Your task to perform on an android device: Open sound settings Image 0: 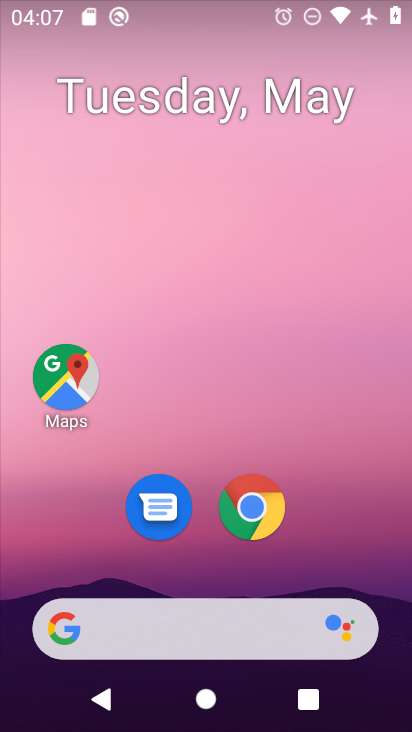
Step 0: drag from (217, 501) to (203, 115)
Your task to perform on an android device: Open sound settings Image 1: 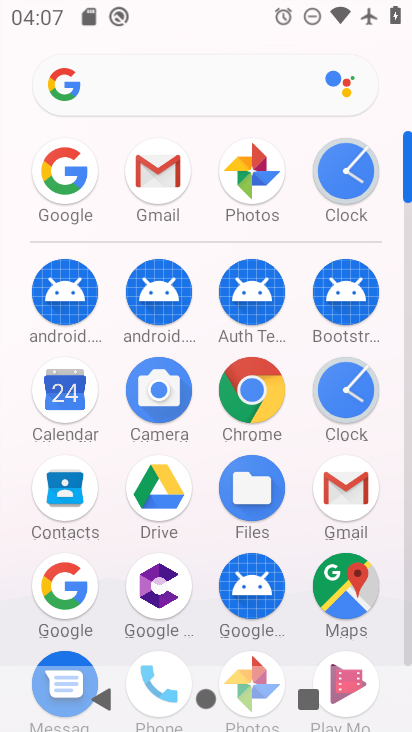
Step 1: drag from (126, 588) to (136, 226)
Your task to perform on an android device: Open sound settings Image 2: 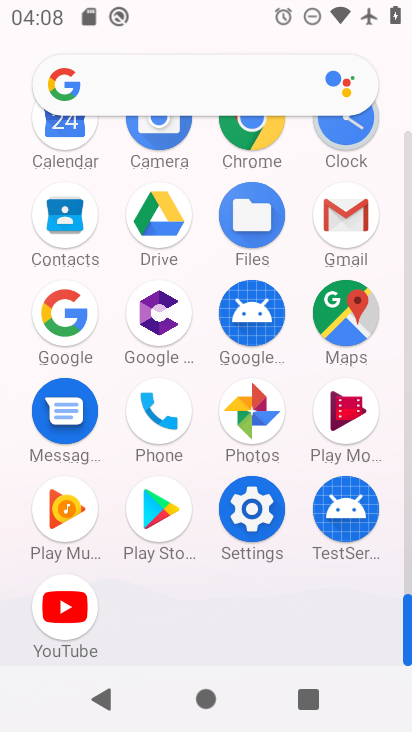
Step 2: click (240, 498)
Your task to perform on an android device: Open sound settings Image 3: 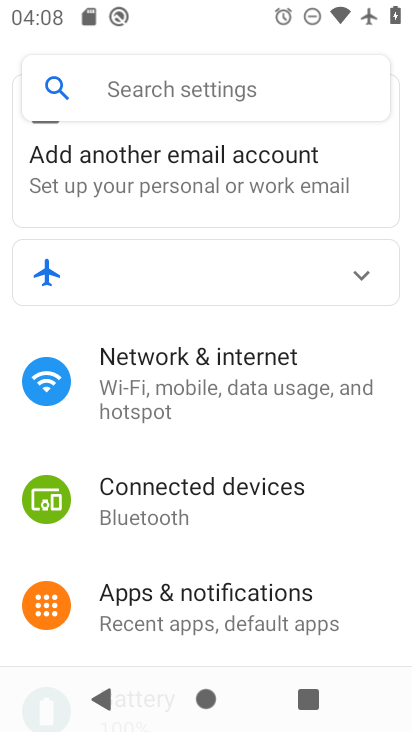
Step 3: click (216, 277)
Your task to perform on an android device: Open sound settings Image 4: 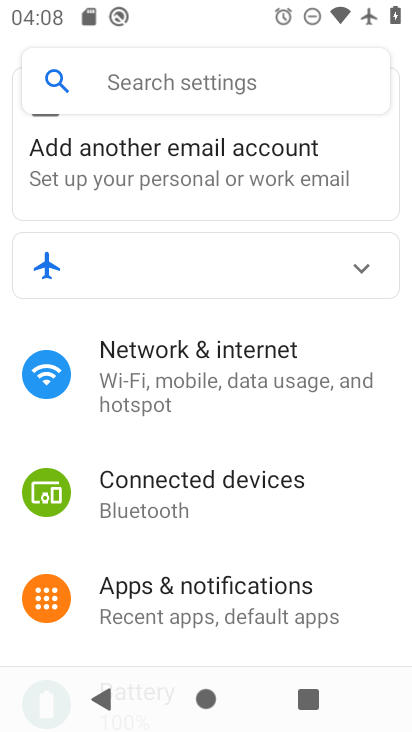
Step 4: drag from (221, 578) to (231, 279)
Your task to perform on an android device: Open sound settings Image 5: 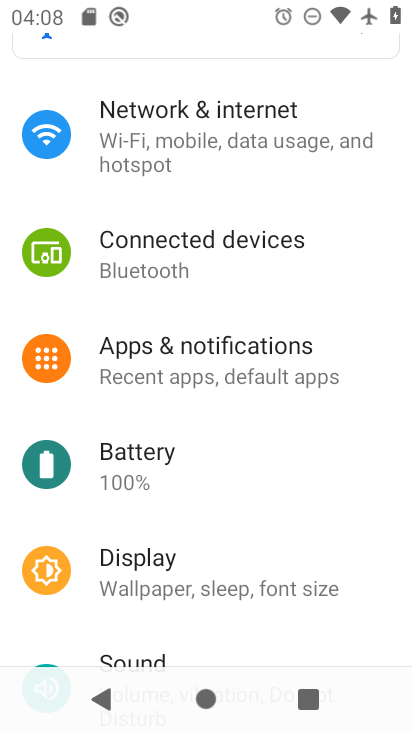
Step 5: drag from (234, 557) to (247, 300)
Your task to perform on an android device: Open sound settings Image 6: 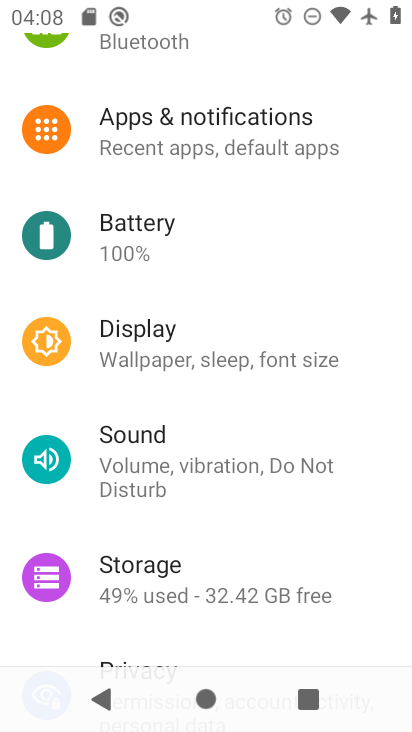
Step 6: click (214, 464)
Your task to perform on an android device: Open sound settings Image 7: 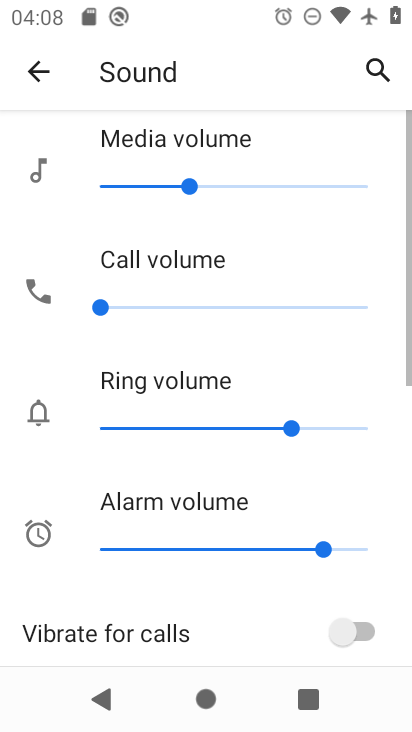
Step 7: task complete